Your task to perform on an android device: turn on sleep mode Image 0: 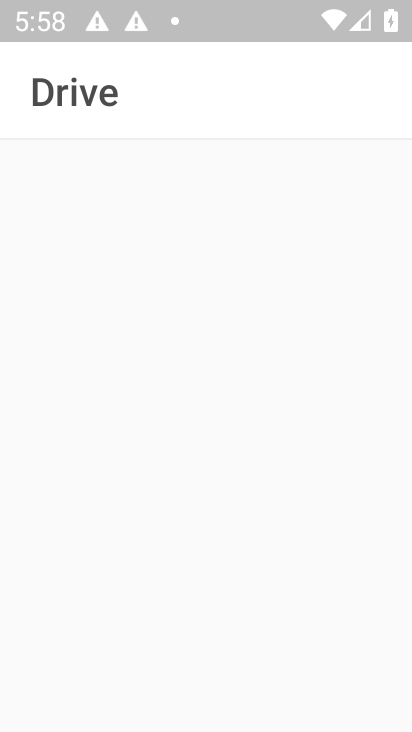
Step 0: press home button
Your task to perform on an android device: turn on sleep mode Image 1: 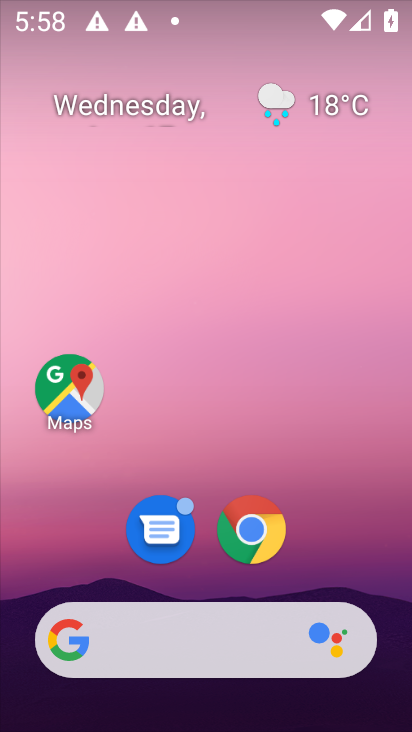
Step 1: task complete